Your task to perform on an android device: open app "Spotify" (install if not already installed) Image 0: 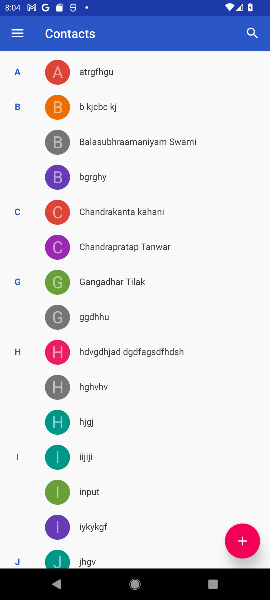
Step 0: press back button
Your task to perform on an android device: open app "Spotify" (install if not already installed) Image 1: 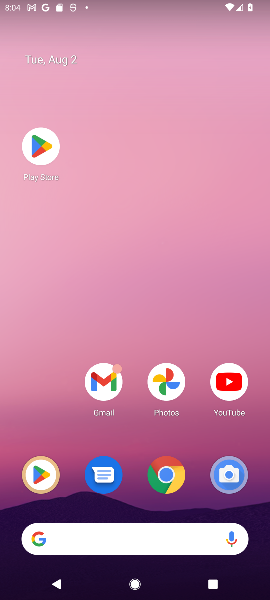
Step 1: drag from (176, 520) to (130, 178)
Your task to perform on an android device: open app "Spotify" (install if not already installed) Image 2: 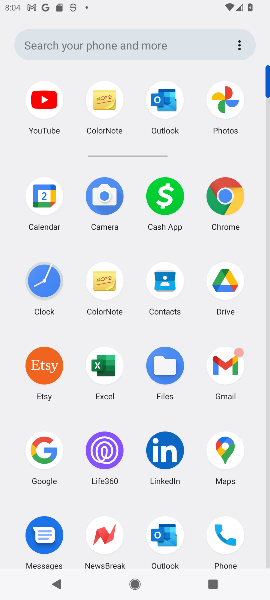
Step 2: click (138, 378)
Your task to perform on an android device: open app "Spotify" (install if not already installed) Image 3: 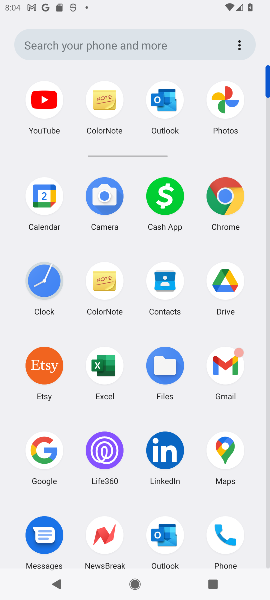
Step 3: drag from (126, 465) to (120, 127)
Your task to perform on an android device: open app "Spotify" (install if not already installed) Image 4: 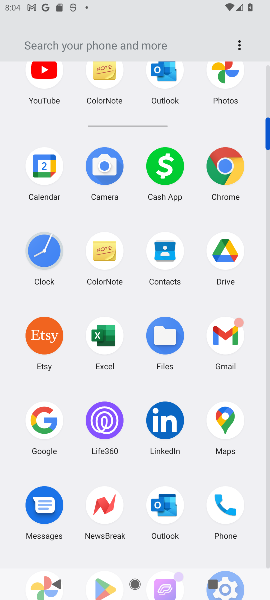
Step 4: drag from (113, 363) to (129, 136)
Your task to perform on an android device: open app "Spotify" (install if not already installed) Image 5: 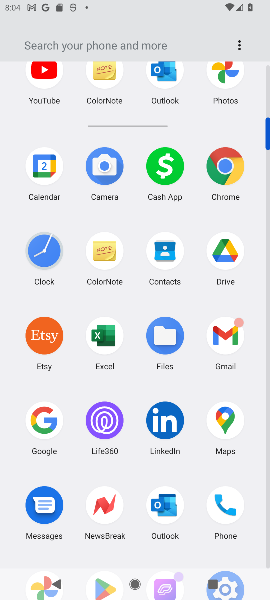
Step 5: drag from (156, 412) to (151, 160)
Your task to perform on an android device: open app "Spotify" (install if not already installed) Image 6: 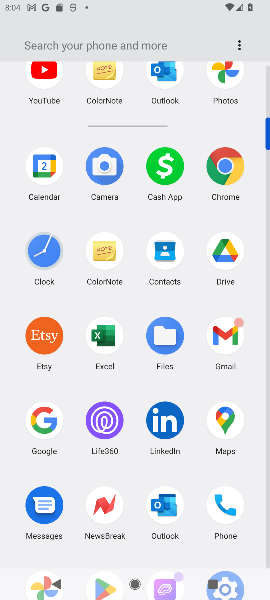
Step 6: drag from (127, 426) to (69, 189)
Your task to perform on an android device: open app "Spotify" (install if not already installed) Image 7: 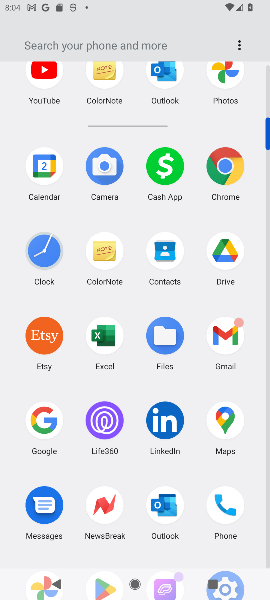
Step 7: click (70, 260)
Your task to perform on an android device: open app "Spotify" (install if not already installed) Image 8: 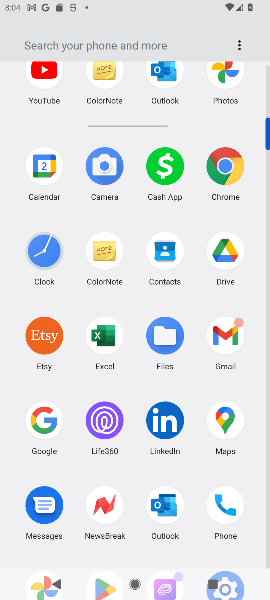
Step 8: click (111, 257)
Your task to perform on an android device: open app "Spotify" (install if not already installed) Image 9: 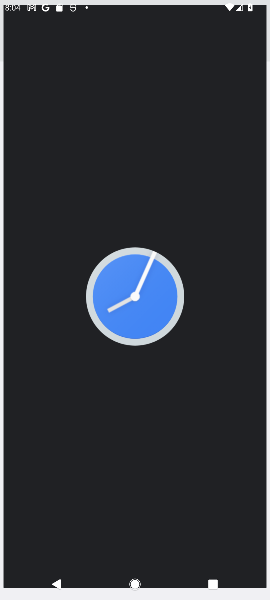
Step 9: drag from (125, 384) to (124, 275)
Your task to perform on an android device: open app "Spotify" (install if not already installed) Image 10: 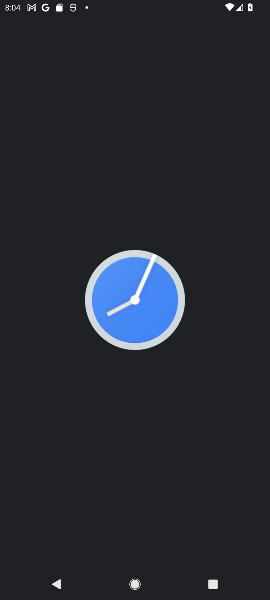
Step 10: drag from (118, 265) to (127, 163)
Your task to perform on an android device: open app "Spotify" (install if not already installed) Image 11: 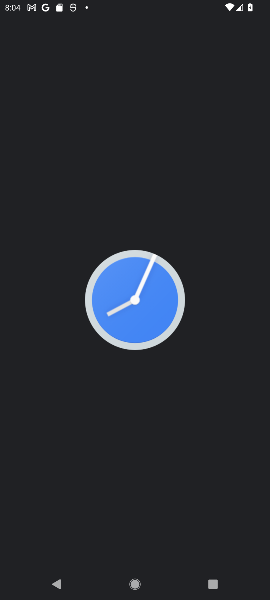
Step 11: press back button
Your task to perform on an android device: open app "Spotify" (install if not already installed) Image 12: 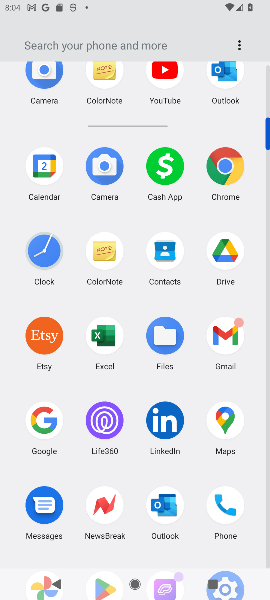
Step 12: press back button
Your task to perform on an android device: open app "Spotify" (install if not already installed) Image 13: 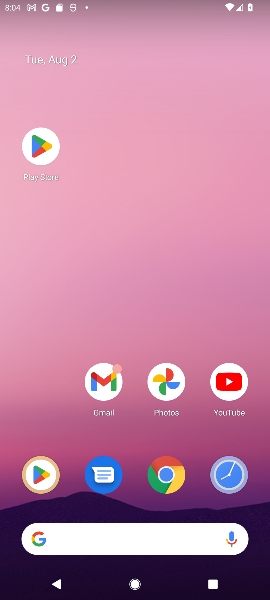
Step 13: drag from (100, 515) to (64, 243)
Your task to perform on an android device: open app "Spotify" (install if not already installed) Image 14: 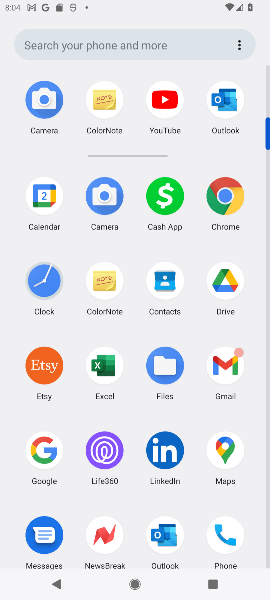
Step 14: drag from (113, 364) to (79, 41)
Your task to perform on an android device: open app "Spotify" (install if not already installed) Image 15: 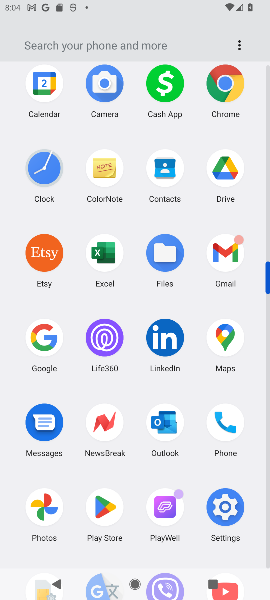
Step 15: drag from (134, 445) to (107, 56)
Your task to perform on an android device: open app "Spotify" (install if not already installed) Image 16: 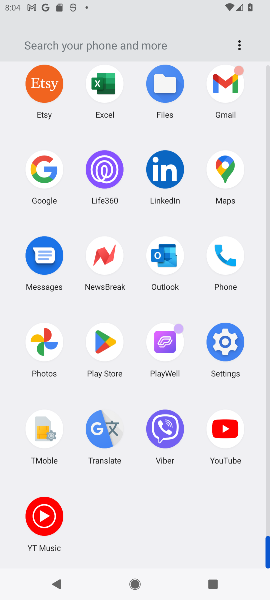
Step 16: drag from (129, 509) to (87, 224)
Your task to perform on an android device: open app "Spotify" (install if not already installed) Image 17: 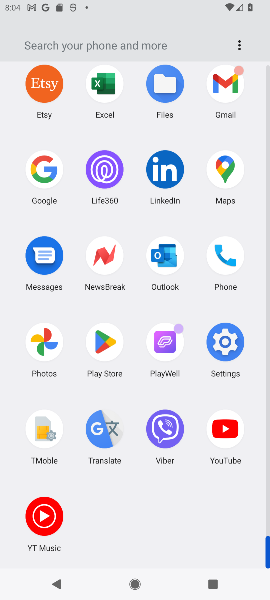
Step 17: drag from (68, 493) to (42, 267)
Your task to perform on an android device: open app "Spotify" (install if not already installed) Image 18: 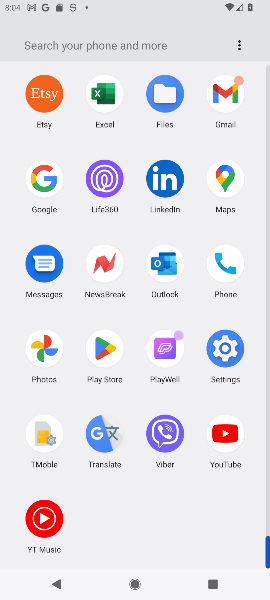
Step 18: drag from (129, 455) to (106, 279)
Your task to perform on an android device: open app "Spotify" (install if not already installed) Image 19: 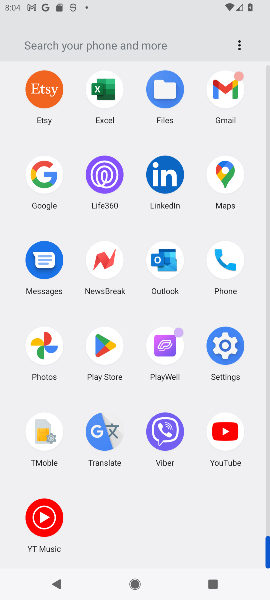
Step 19: click (118, 161)
Your task to perform on an android device: open app "Spotify" (install if not already installed) Image 20: 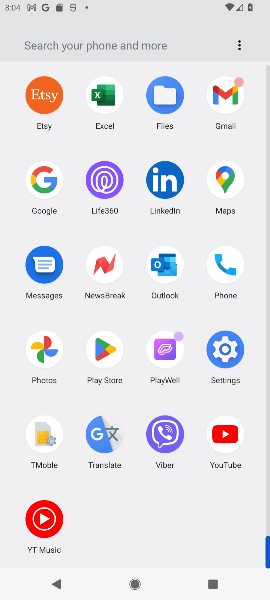
Step 20: drag from (133, 460) to (128, 181)
Your task to perform on an android device: open app "Spotify" (install if not already installed) Image 21: 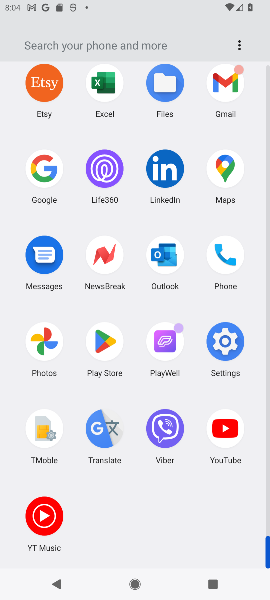
Step 21: drag from (133, 406) to (102, 154)
Your task to perform on an android device: open app "Spotify" (install if not already installed) Image 22: 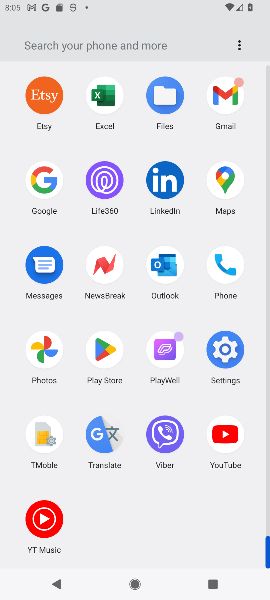
Step 22: click (103, 358)
Your task to perform on an android device: open app "Spotify" (install if not already installed) Image 23: 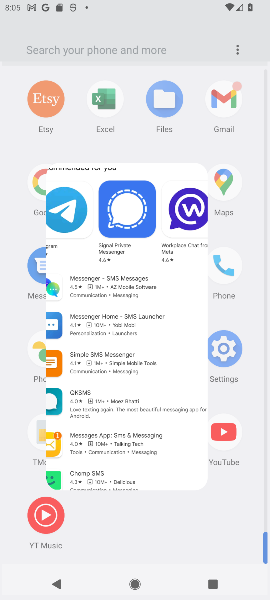
Step 23: click (103, 361)
Your task to perform on an android device: open app "Spotify" (install if not already installed) Image 24: 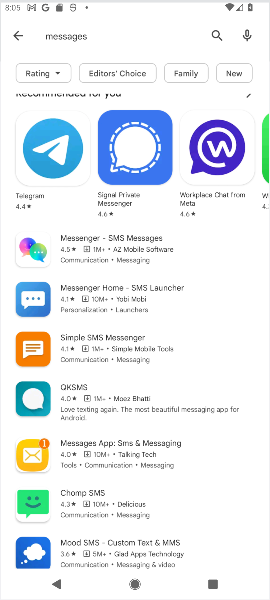
Step 24: click (103, 362)
Your task to perform on an android device: open app "Spotify" (install if not already installed) Image 25: 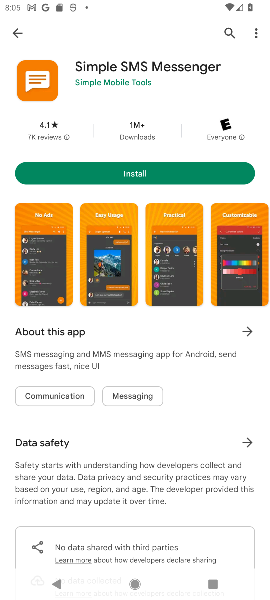
Step 25: click (13, 29)
Your task to perform on an android device: open app "Spotify" (install if not already installed) Image 26: 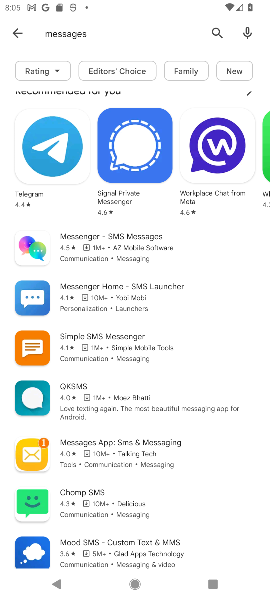
Step 26: click (11, 30)
Your task to perform on an android device: open app "Spotify" (install if not already installed) Image 27: 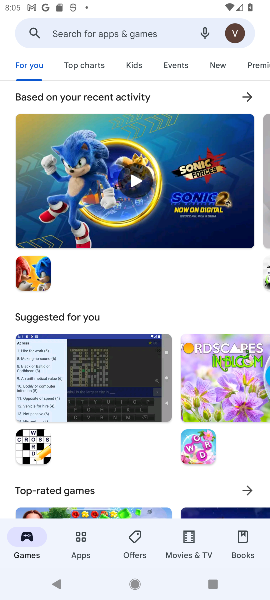
Step 27: click (67, 34)
Your task to perform on an android device: open app "Spotify" (install if not already installed) Image 28: 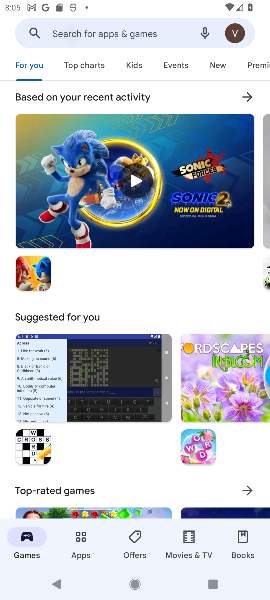
Step 28: click (66, 35)
Your task to perform on an android device: open app "Spotify" (install if not already installed) Image 29: 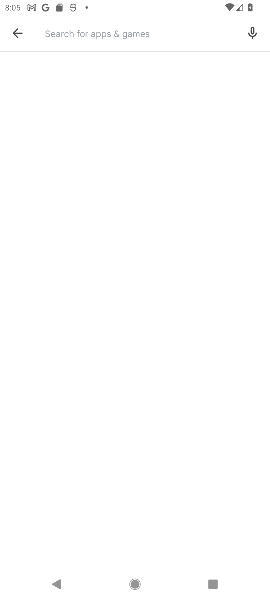
Step 29: click (67, 36)
Your task to perform on an android device: open app "Spotify" (install if not already installed) Image 30: 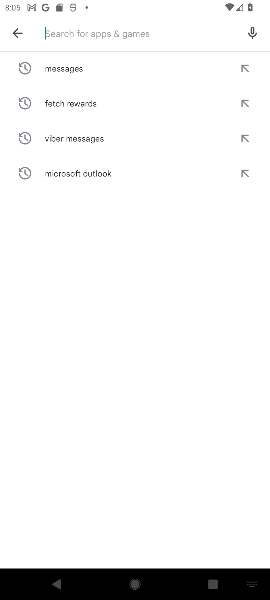
Step 30: click (67, 36)
Your task to perform on an android device: open app "Spotify" (install if not already installed) Image 31: 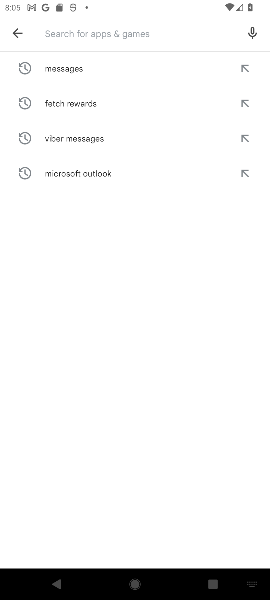
Step 31: type "spotify"
Your task to perform on an android device: open app "Spotify" (install if not already installed) Image 32: 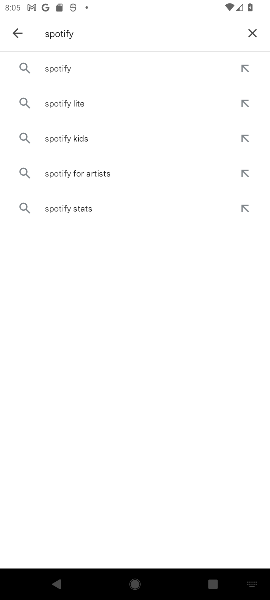
Step 32: click (54, 66)
Your task to perform on an android device: open app "Spotify" (install if not already installed) Image 33: 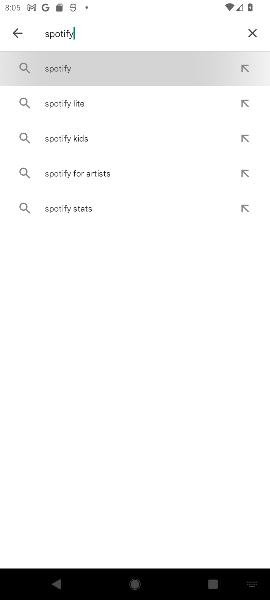
Step 33: click (54, 66)
Your task to perform on an android device: open app "Spotify" (install if not already installed) Image 34: 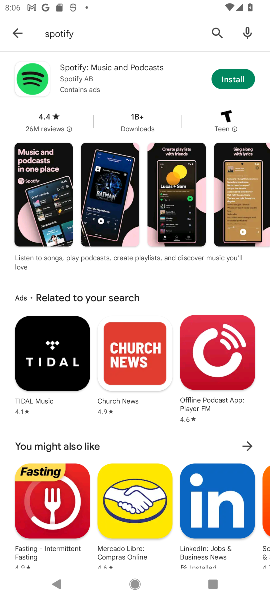
Step 34: click (230, 76)
Your task to perform on an android device: open app "Spotify" (install if not already installed) Image 35: 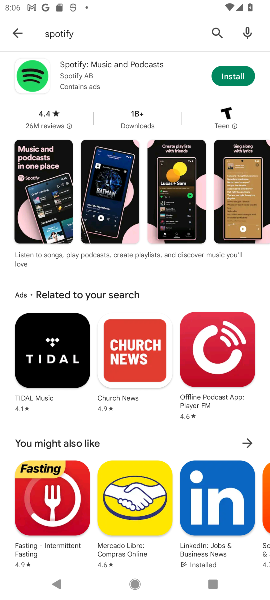
Step 35: click (237, 80)
Your task to perform on an android device: open app "Spotify" (install if not already installed) Image 36: 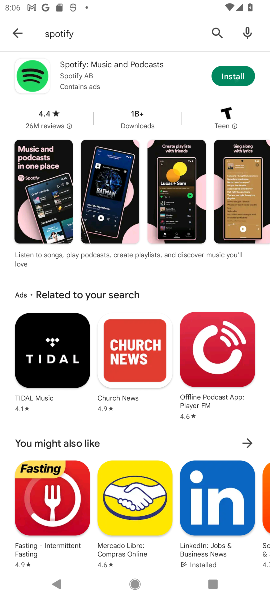
Step 36: click (237, 80)
Your task to perform on an android device: open app "Spotify" (install if not already installed) Image 37: 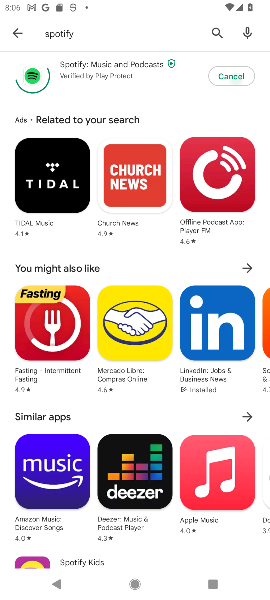
Step 37: click (235, 79)
Your task to perform on an android device: open app "Spotify" (install if not already installed) Image 38: 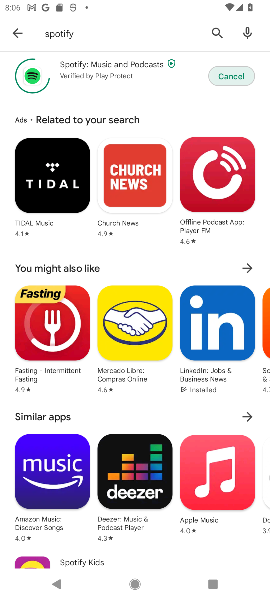
Step 38: click (235, 79)
Your task to perform on an android device: open app "Spotify" (install if not already installed) Image 39: 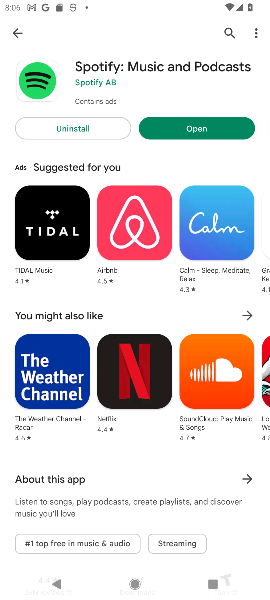
Step 39: click (225, 133)
Your task to perform on an android device: open app "Spotify" (install if not already installed) Image 40: 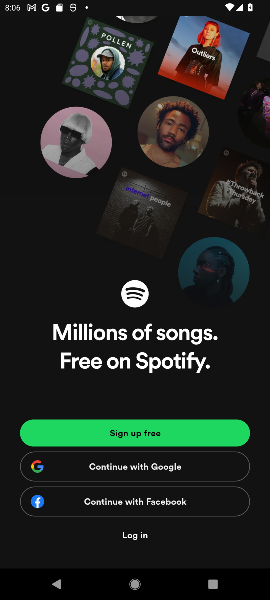
Step 40: task complete